Your task to perform on an android device: What is the recent news? Image 0: 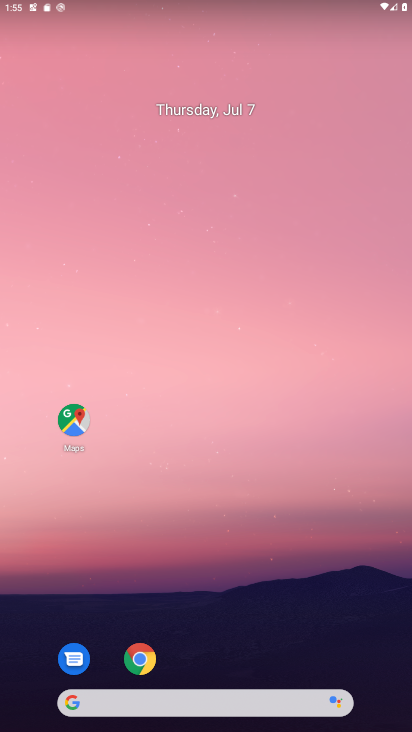
Step 0: drag from (225, 639) to (247, 249)
Your task to perform on an android device: What is the recent news? Image 1: 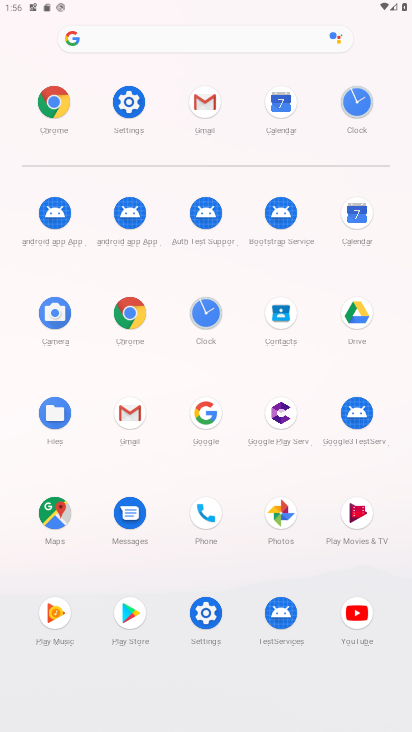
Step 1: click (151, 42)
Your task to perform on an android device: What is the recent news? Image 2: 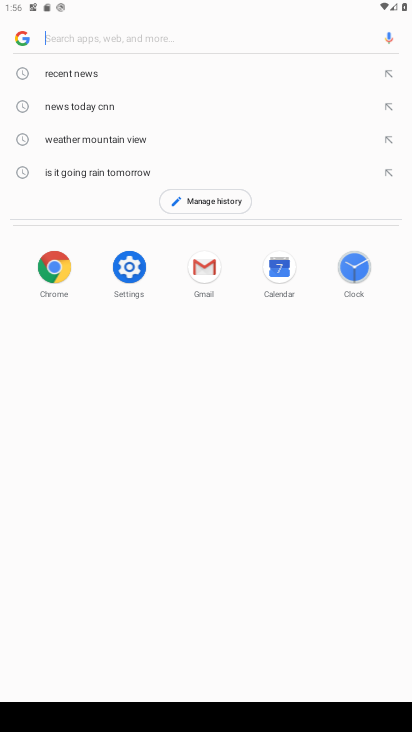
Step 2: type "recent news?"
Your task to perform on an android device: What is the recent news? Image 3: 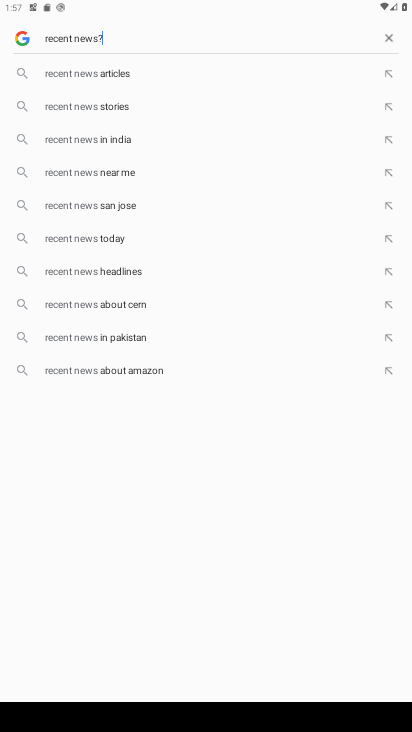
Step 3: click (32, 239)
Your task to perform on an android device: What is the recent news? Image 4: 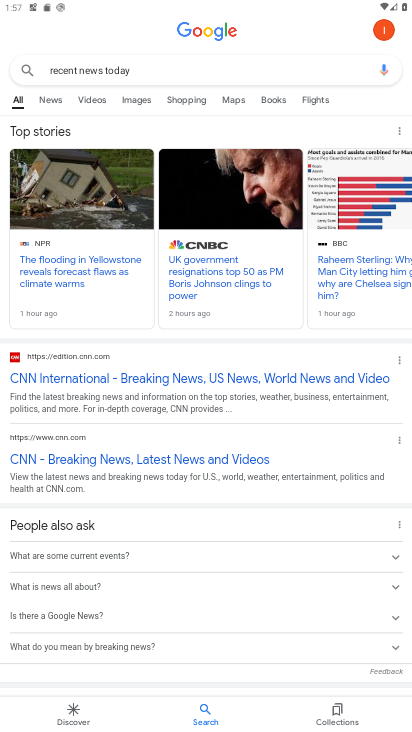
Step 4: task complete